Your task to perform on an android device: Open Youtube and go to the subscriptions tab Image 0: 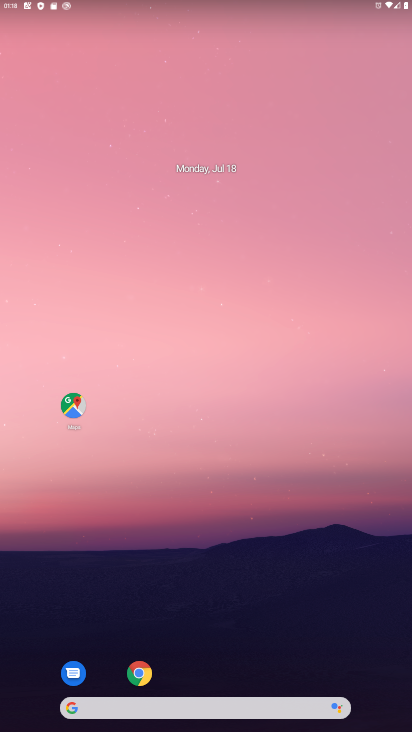
Step 0: drag from (332, 669) to (299, 103)
Your task to perform on an android device: Open Youtube and go to the subscriptions tab Image 1: 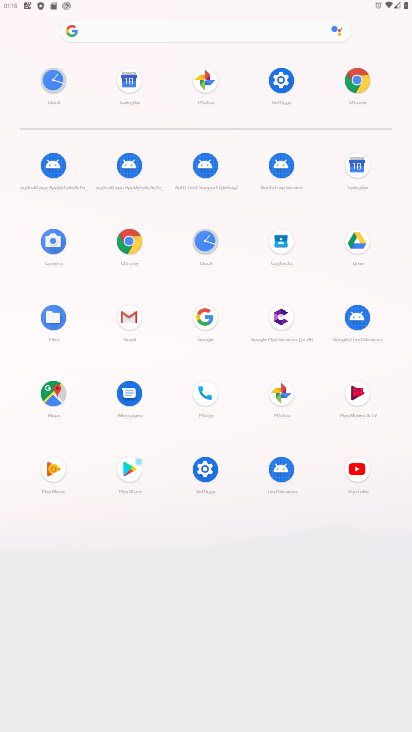
Step 1: click (363, 465)
Your task to perform on an android device: Open Youtube and go to the subscriptions tab Image 2: 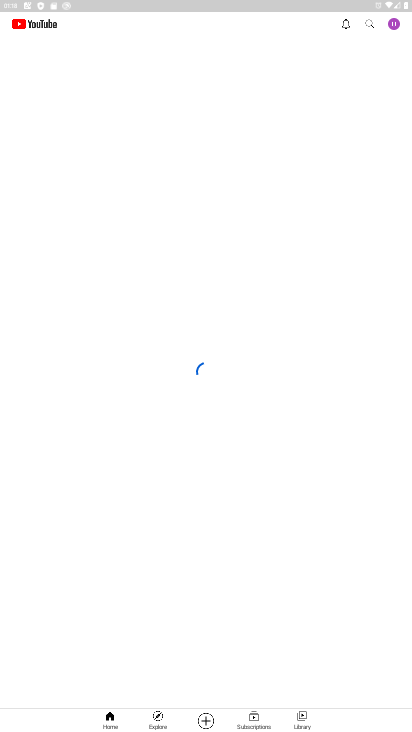
Step 2: task complete